Your task to perform on an android device: Go to Maps Image 0: 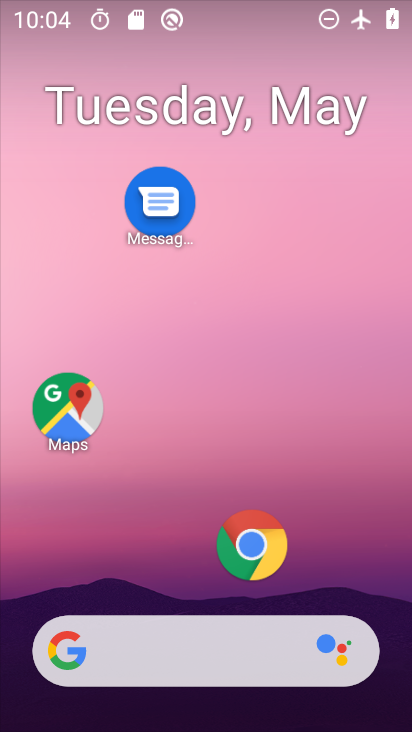
Step 0: click (71, 413)
Your task to perform on an android device: Go to Maps Image 1: 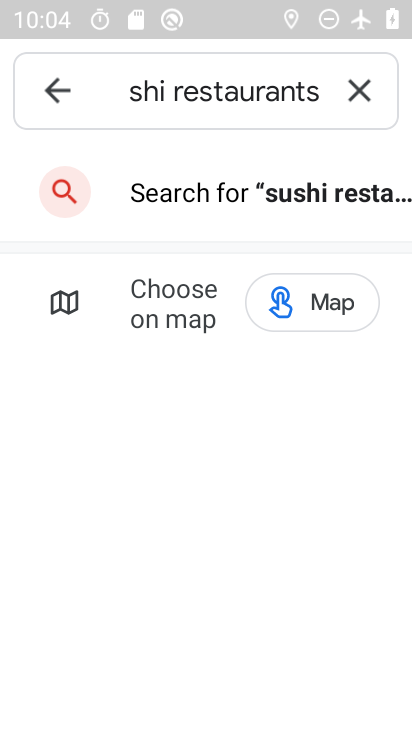
Step 1: click (353, 94)
Your task to perform on an android device: Go to Maps Image 2: 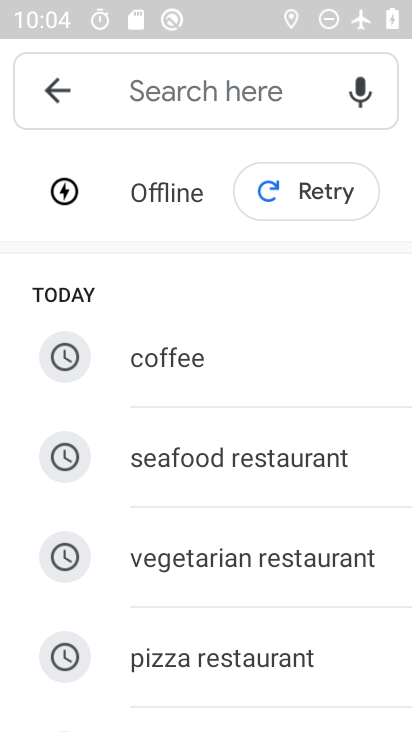
Step 2: click (43, 96)
Your task to perform on an android device: Go to Maps Image 3: 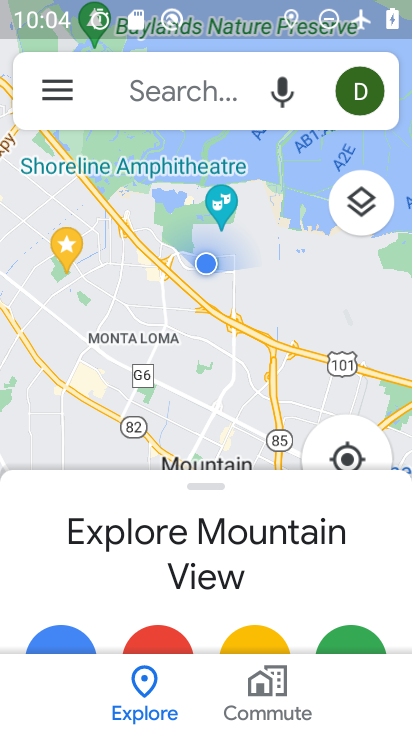
Step 3: task complete